Your task to perform on an android device: Go to Google maps Image 0: 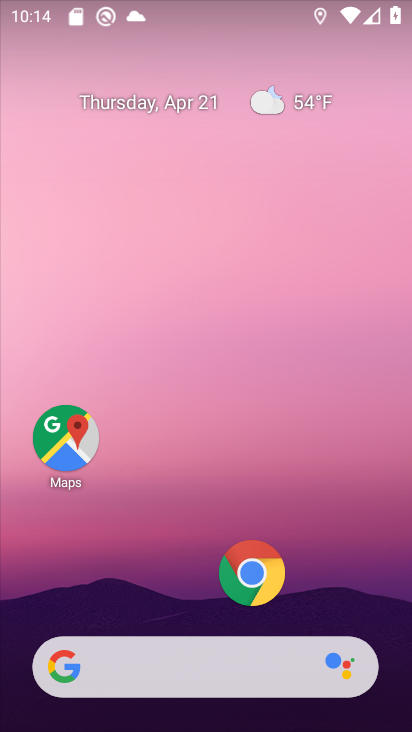
Step 0: click (58, 449)
Your task to perform on an android device: Go to Google maps Image 1: 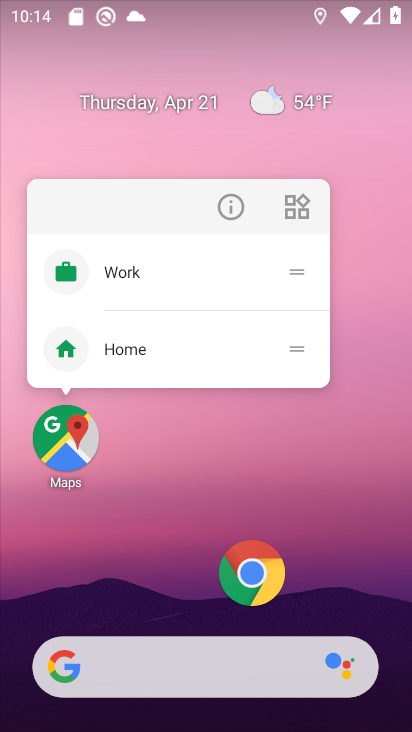
Step 1: click (58, 449)
Your task to perform on an android device: Go to Google maps Image 2: 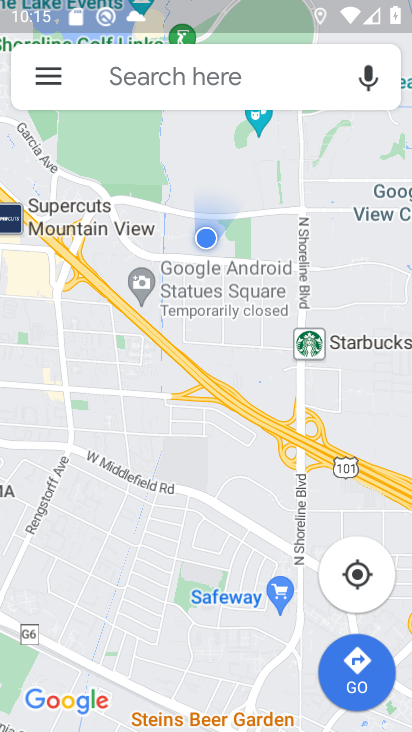
Step 2: task complete